Your task to perform on an android device: turn off notifications settings in the gmail app Image 0: 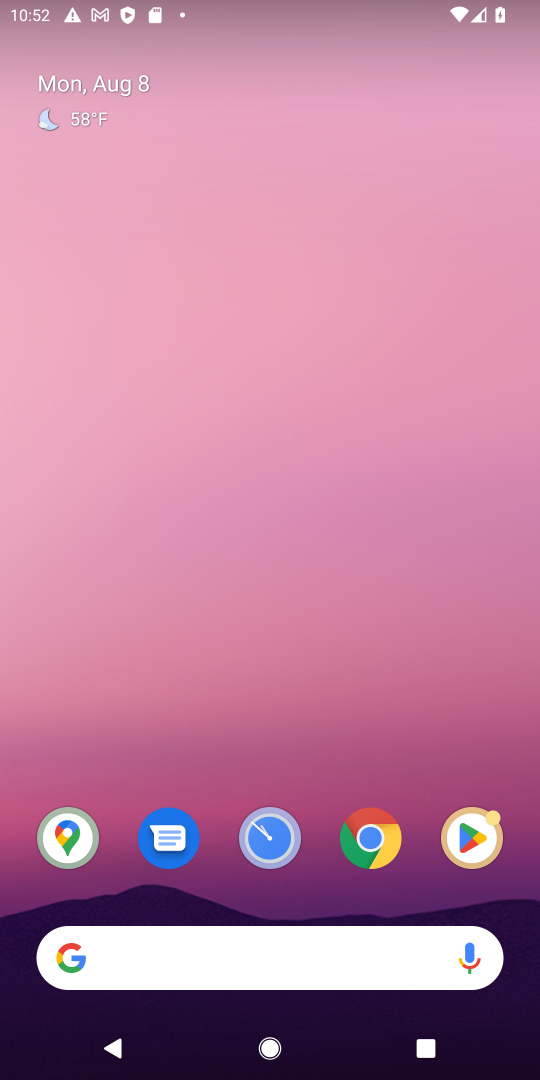
Step 0: press home button
Your task to perform on an android device: turn off notifications settings in the gmail app Image 1: 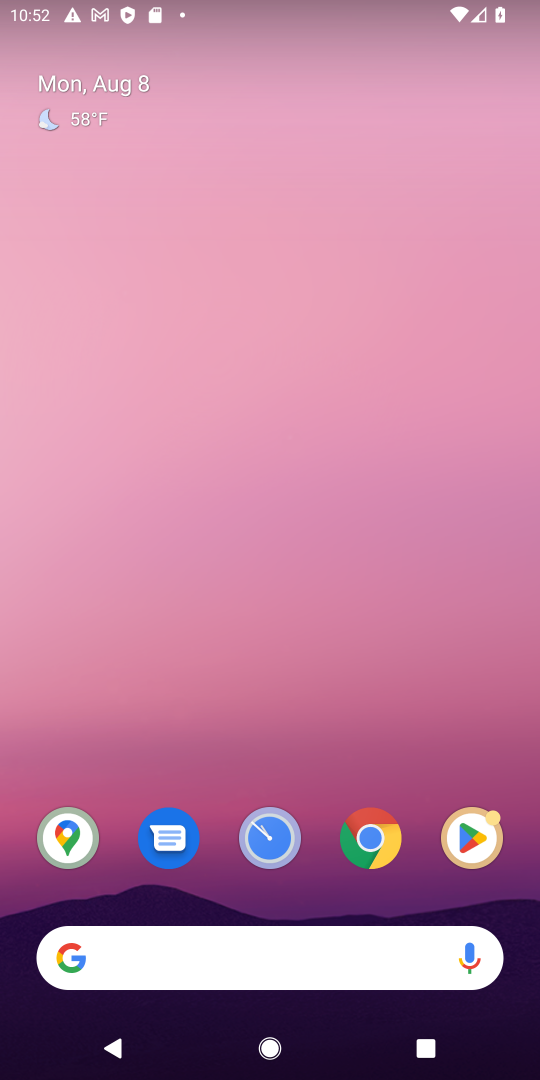
Step 1: drag from (327, 818) to (330, 290)
Your task to perform on an android device: turn off notifications settings in the gmail app Image 2: 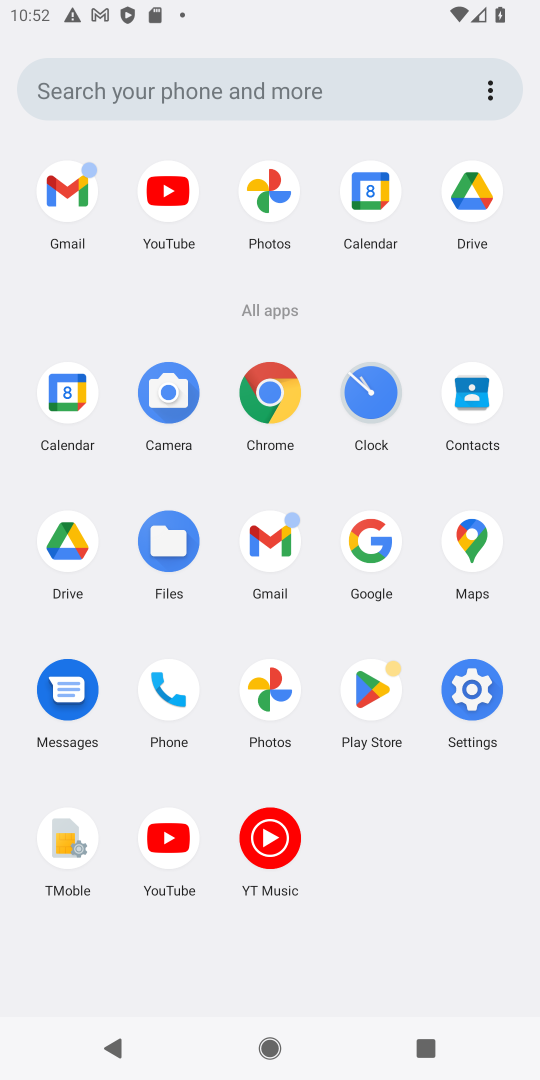
Step 2: click (50, 195)
Your task to perform on an android device: turn off notifications settings in the gmail app Image 3: 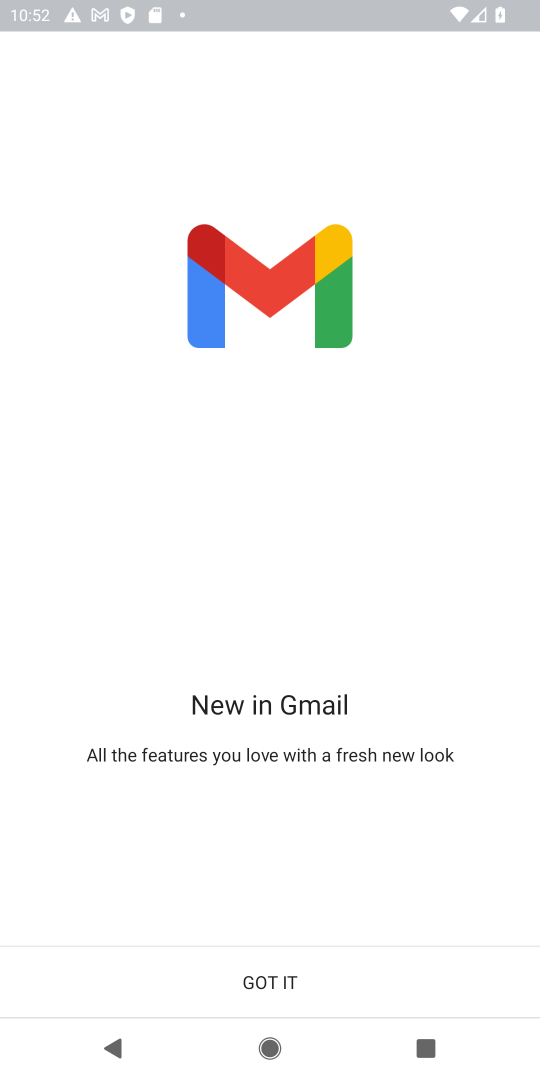
Step 3: click (278, 982)
Your task to perform on an android device: turn off notifications settings in the gmail app Image 4: 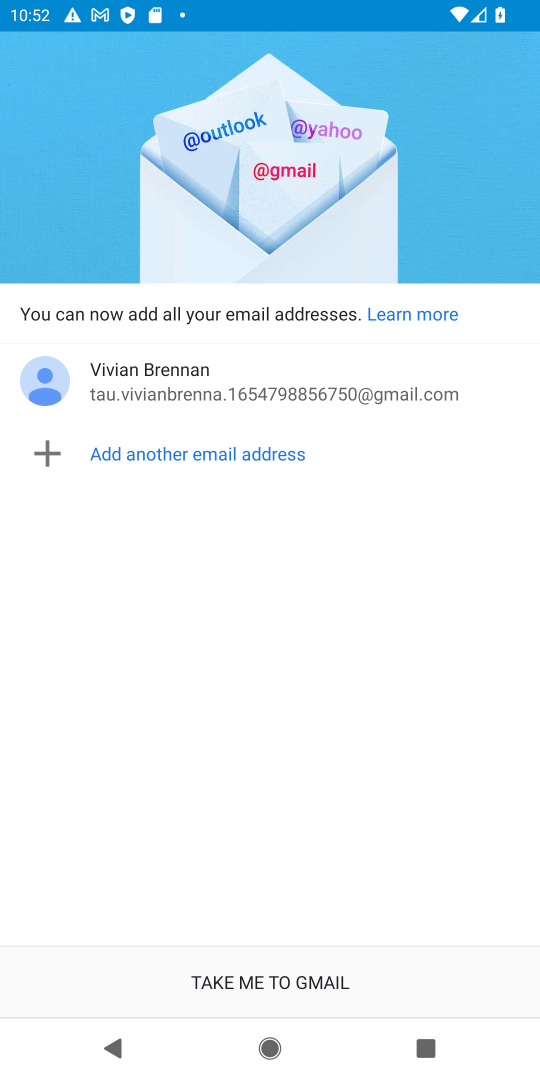
Step 4: click (308, 986)
Your task to perform on an android device: turn off notifications settings in the gmail app Image 5: 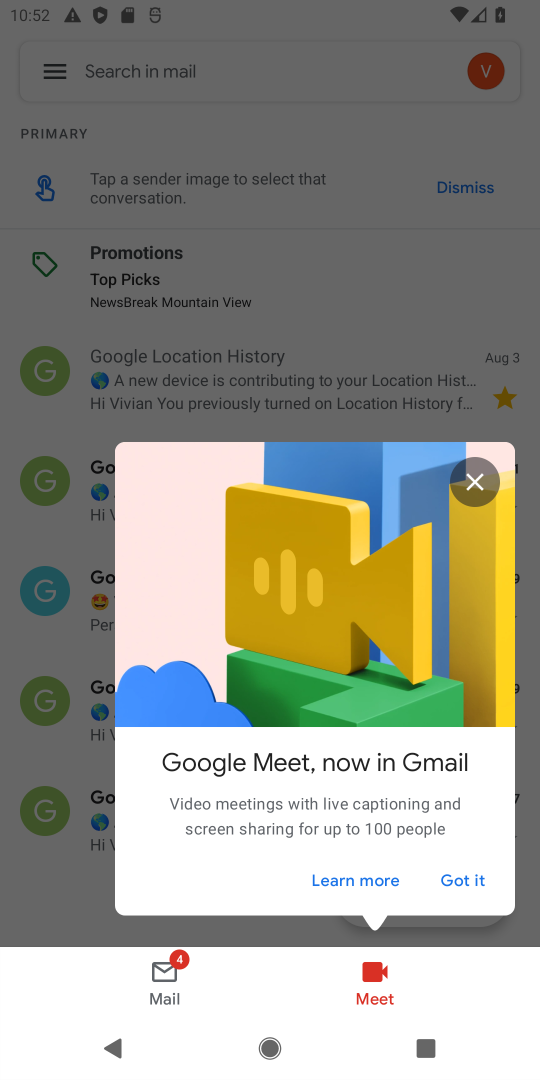
Step 5: click (473, 489)
Your task to perform on an android device: turn off notifications settings in the gmail app Image 6: 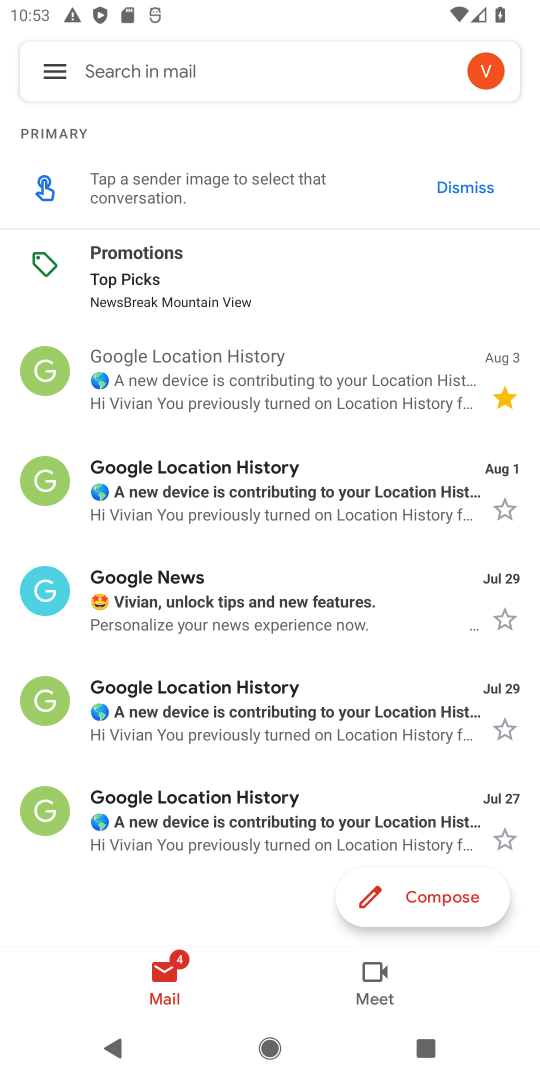
Step 6: click (53, 67)
Your task to perform on an android device: turn off notifications settings in the gmail app Image 7: 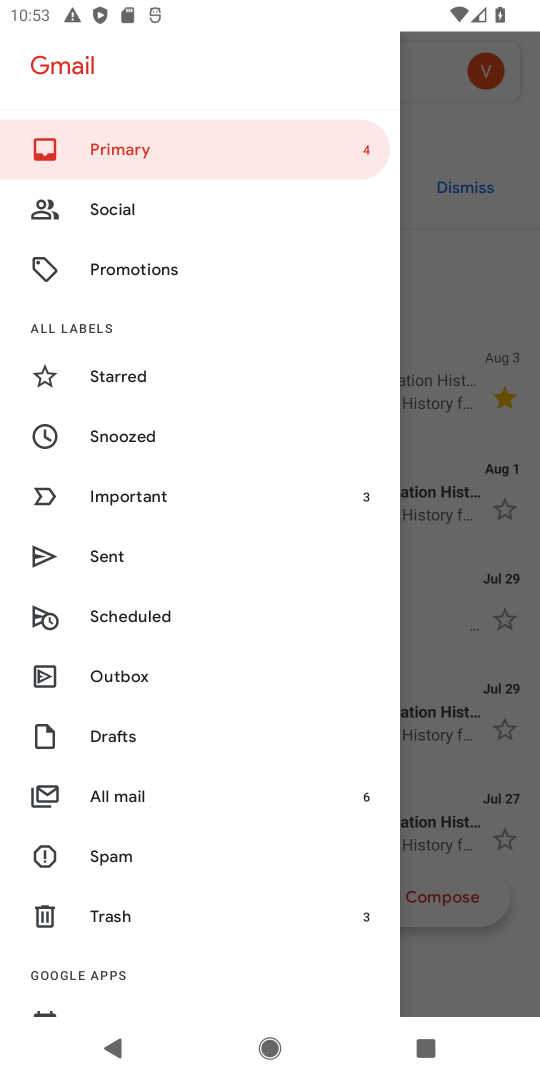
Step 7: click (483, 268)
Your task to perform on an android device: turn off notifications settings in the gmail app Image 8: 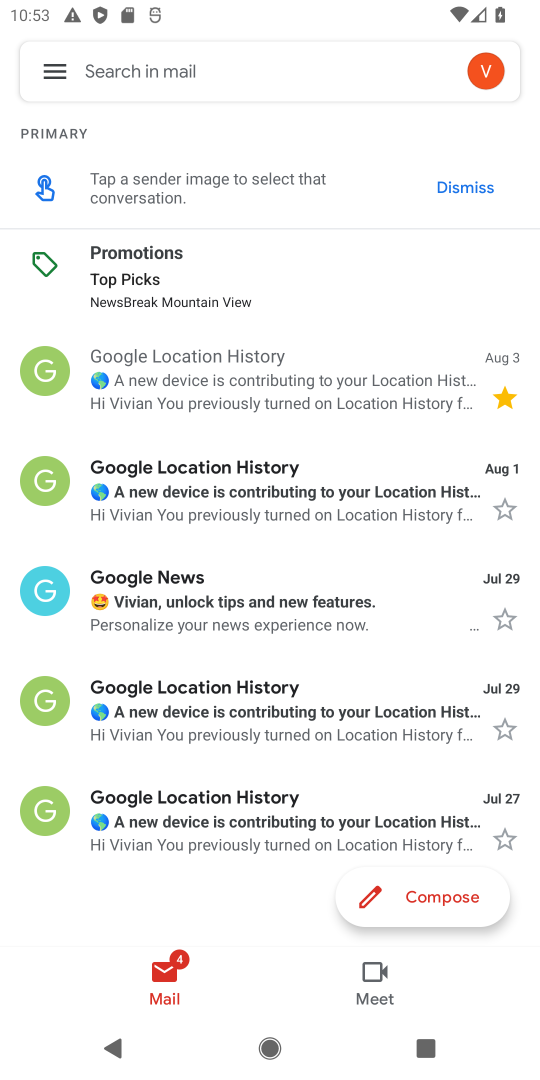
Step 8: click (64, 67)
Your task to perform on an android device: turn off notifications settings in the gmail app Image 9: 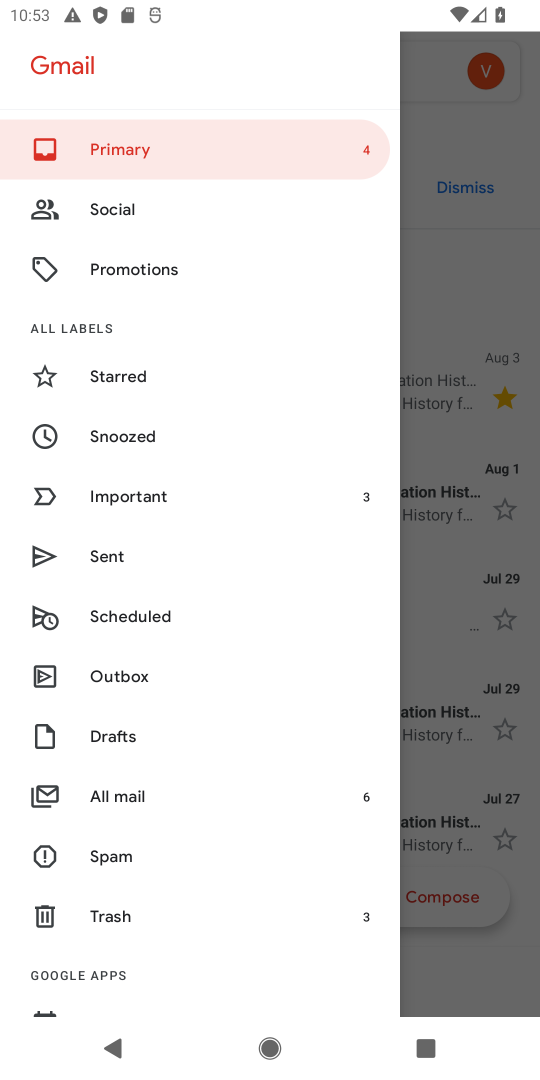
Step 9: drag from (172, 839) to (147, 221)
Your task to perform on an android device: turn off notifications settings in the gmail app Image 10: 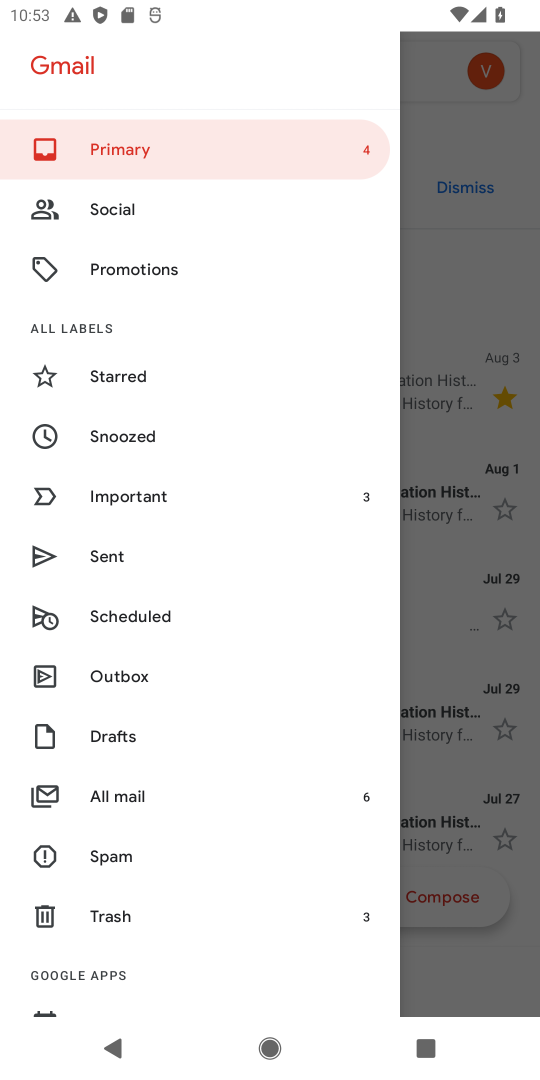
Step 10: drag from (205, 834) to (282, 281)
Your task to perform on an android device: turn off notifications settings in the gmail app Image 11: 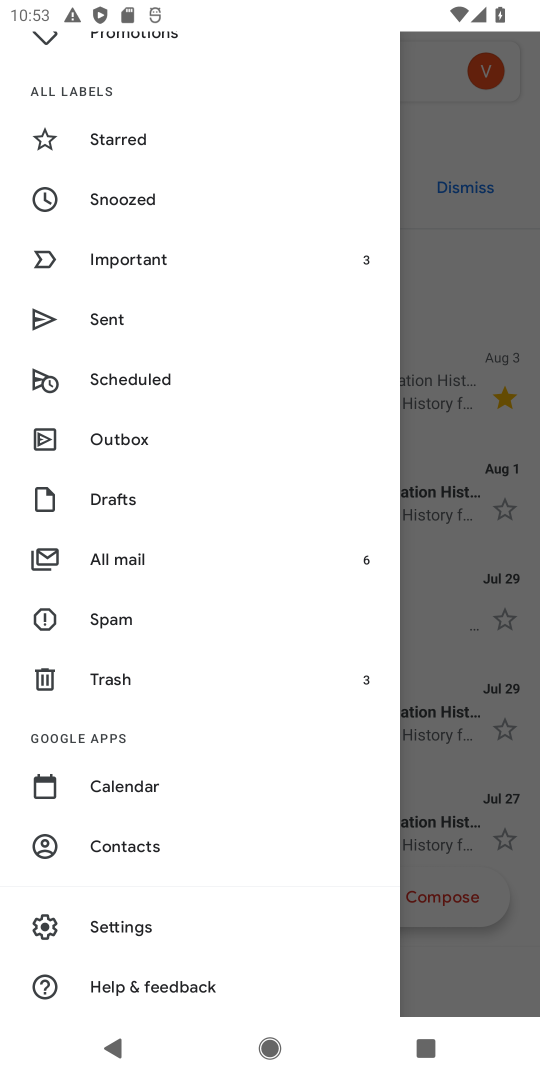
Step 11: click (112, 925)
Your task to perform on an android device: turn off notifications settings in the gmail app Image 12: 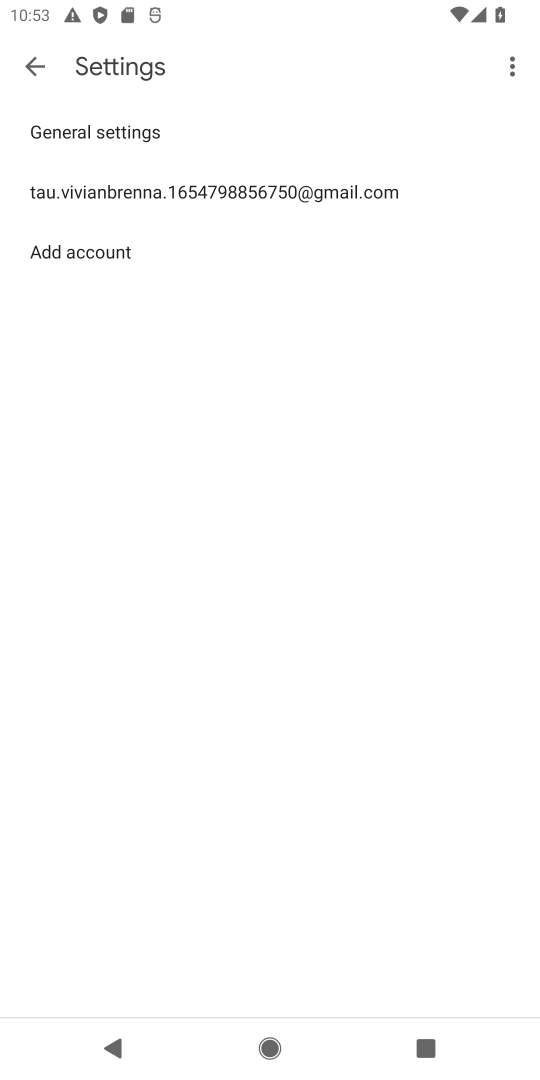
Step 12: click (197, 197)
Your task to perform on an android device: turn off notifications settings in the gmail app Image 13: 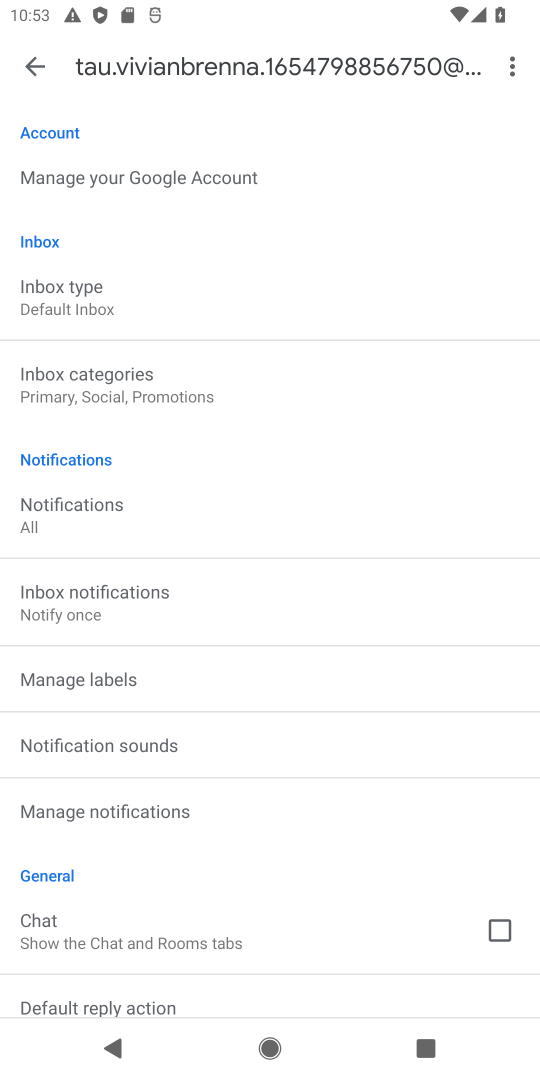
Step 13: click (86, 814)
Your task to perform on an android device: turn off notifications settings in the gmail app Image 14: 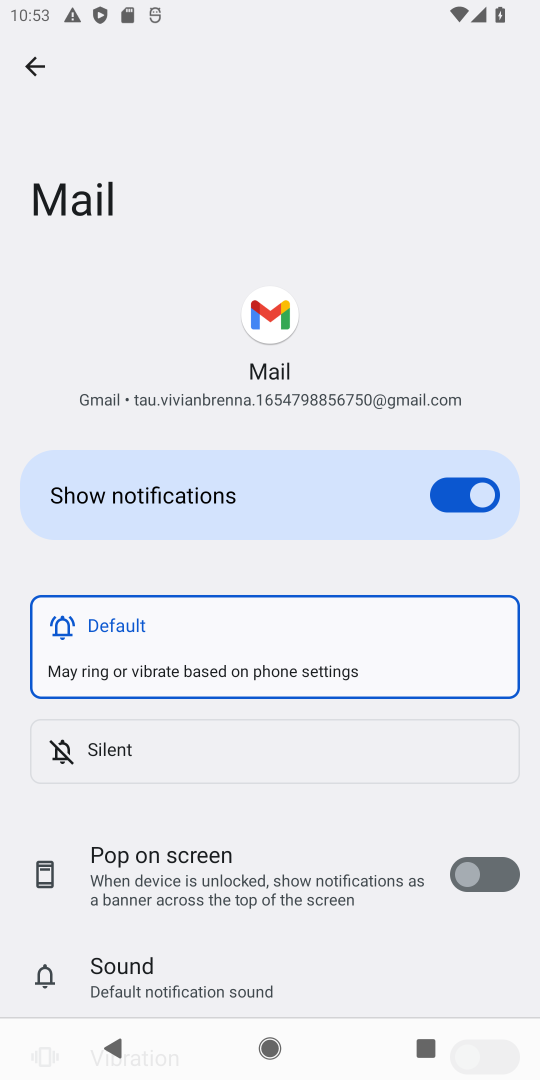
Step 14: click (485, 502)
Your task to perform on an android device: turn off notifications settings in the gmail app Image 15: 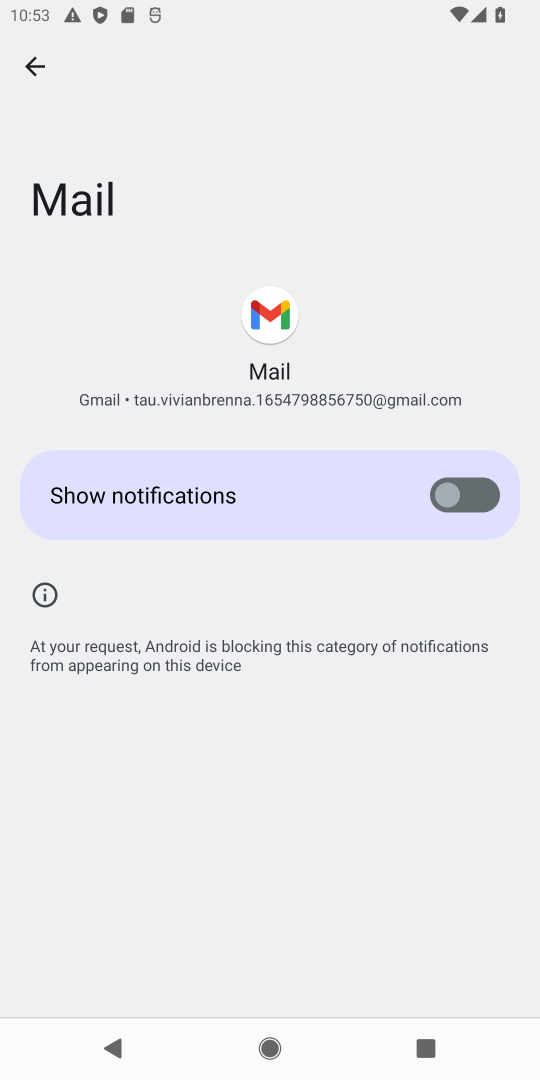
Step 15: task complete